Your task to perform on an android device: turn on translation in the chrome app Image 0: 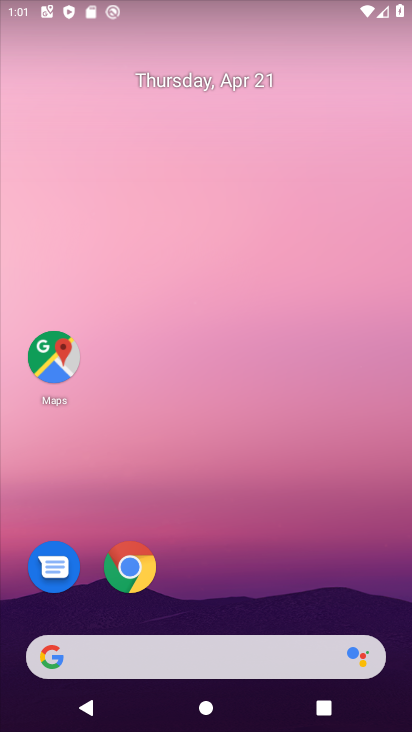
Step 0: click (132, 574)
Your task to perform on an android device: turn on translation in the chrome app Image 1: 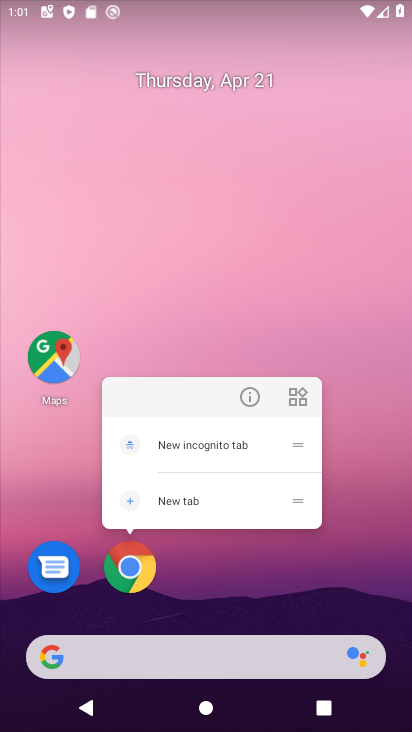
Step 1: click (131, 566)
Your task to perform on an android device: turn on translation in the chrome app Image 2: 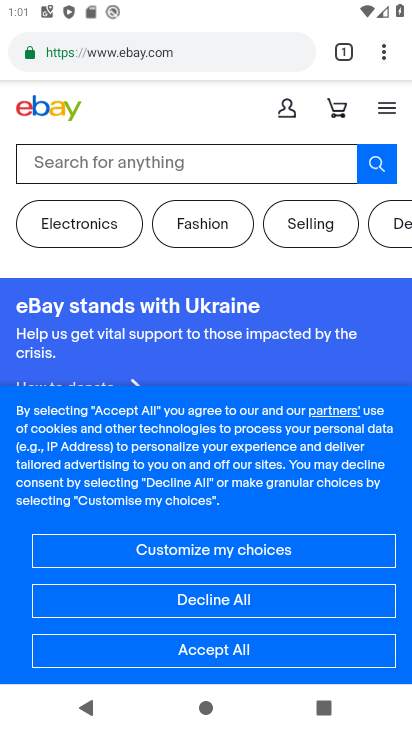
Step 2: drag from (384, 52) to (197, 602)
Your task to perform on an android device: turn on translation in the chrome app Image 3: 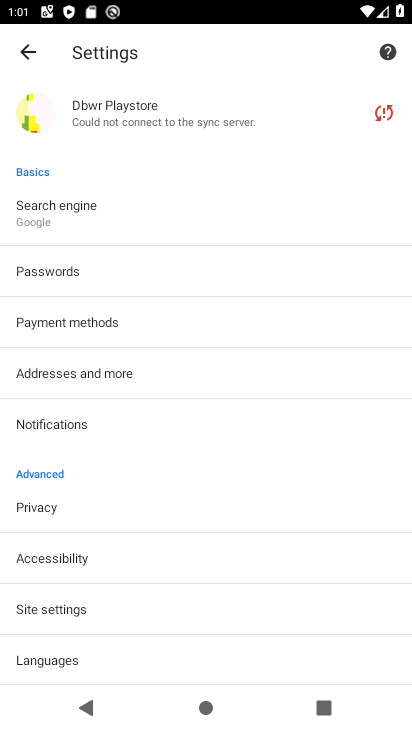
Step 3: click (66, 664)
Your task to perform on an android device: turn on translation in the chrome app Image 4: 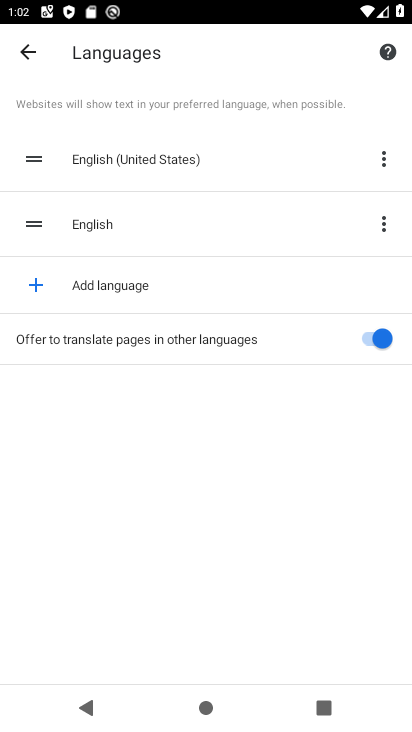
Step 4: task complete